Your task to perform on an android device: change keyboard looks Image 0: 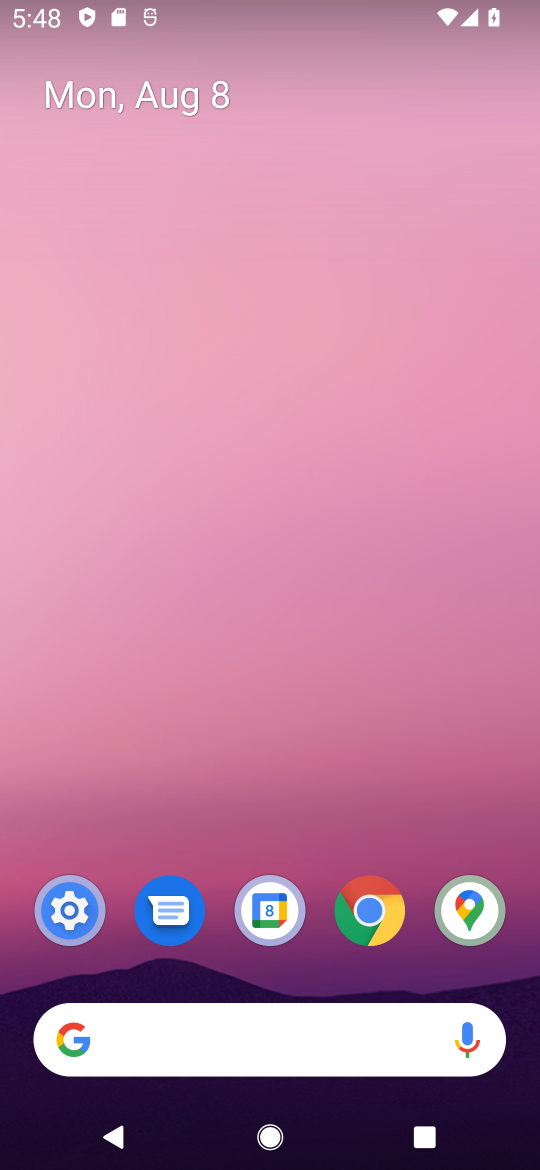
Step 0: drag from (212, 1036) to (293, 432)
Your task to perform on an android device: change keyboard looks Image 1: 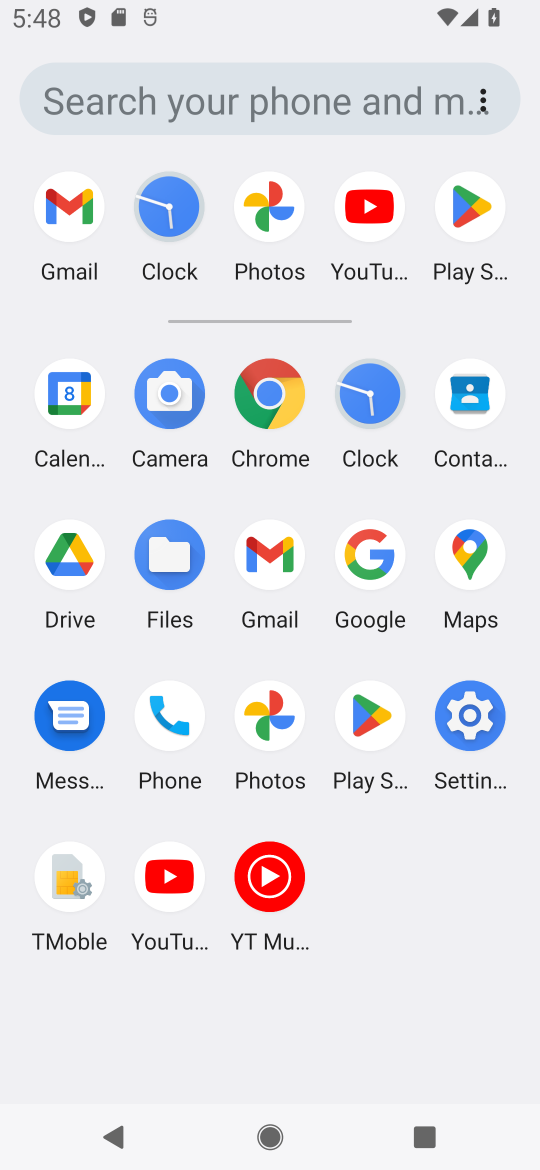
Step 1: click (465, 714)
Your task to perform on an android device: change keyboard looks Image 2: 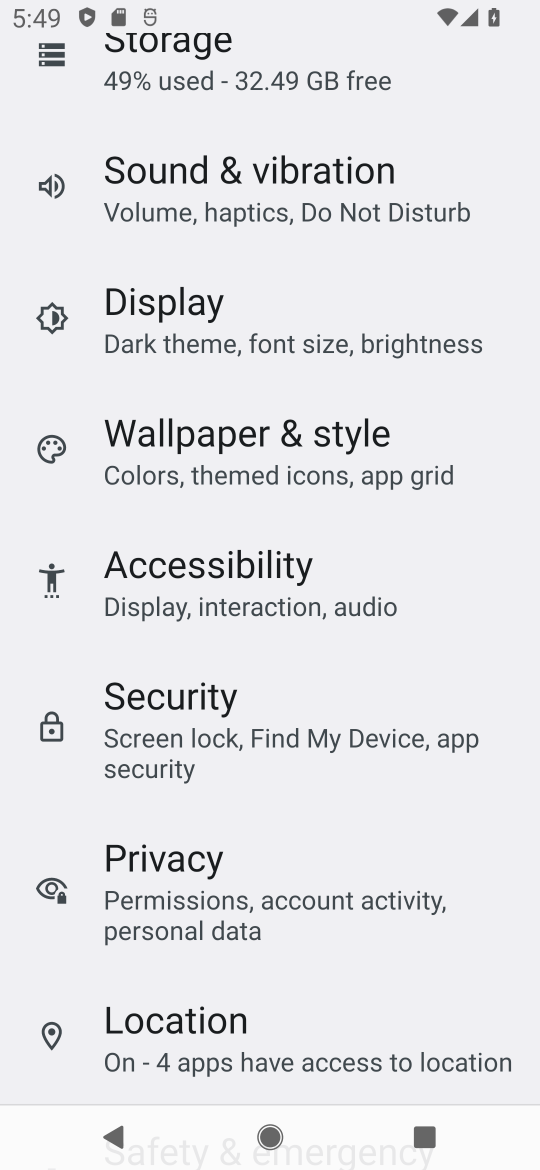
Step 2: drag from (332, 925) to (358, 698)
Your task to perform on an android device: change keyboard looks Image 3: 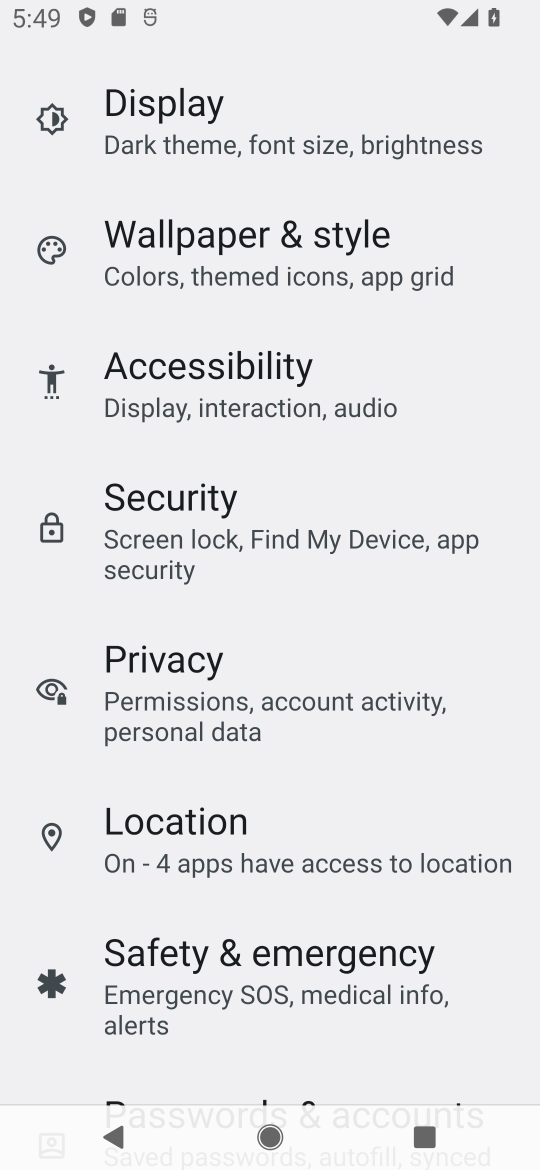
Step 3: drag from (322, 887) to (383, 785)
Your task to perform on an android device: change keyboard looks Image 4: 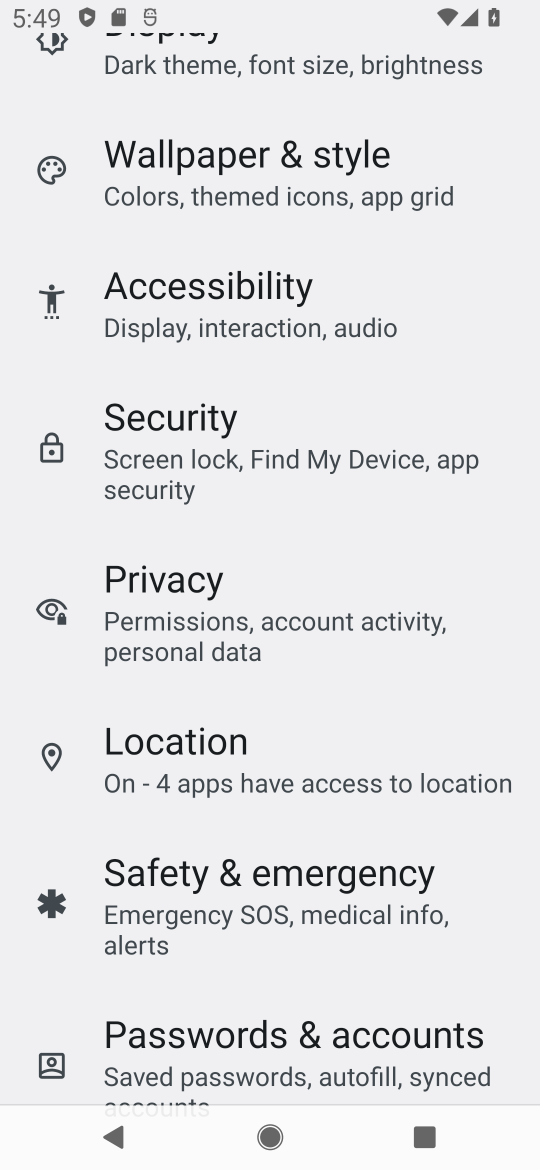
Step 4: drag from (373, 848) to (354, 749)
Your task to perform on an android device: change keyboard looks Image 5: 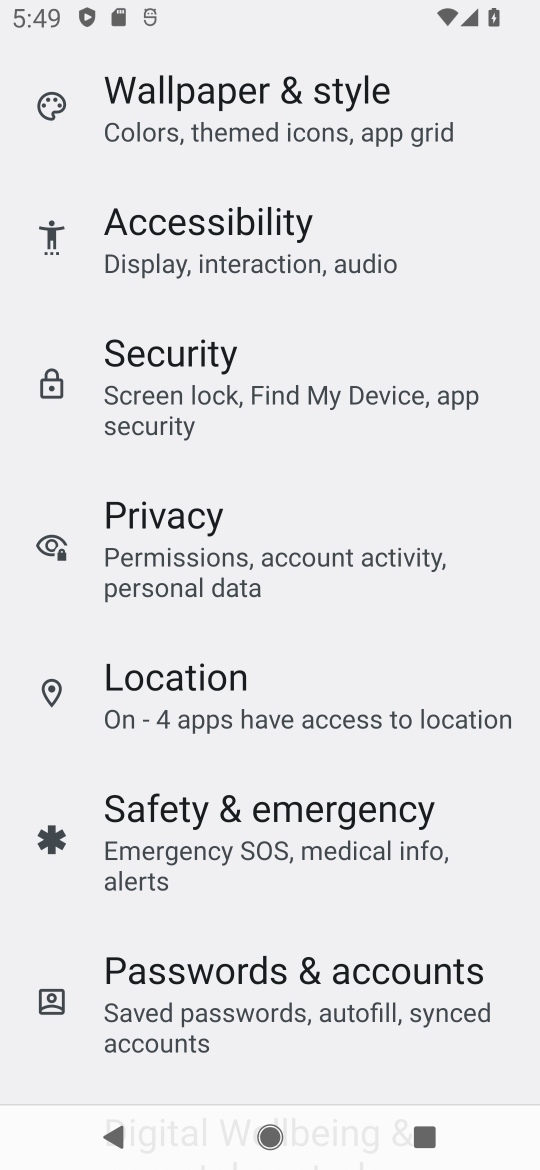
Step 5: drag from (370, 902) to (384, 751)
Your task to perform on an android device: change keyboard looks Image 6: 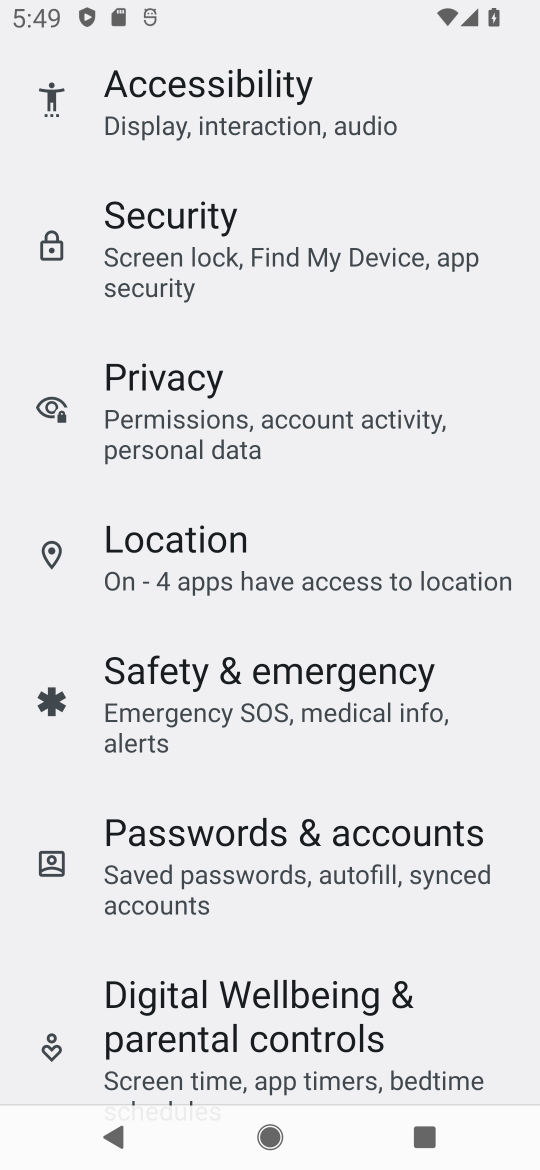
Step 6: drag from (351, 953) to (396, 739)
Your task to perform on an android device: change keyboard looks Image 7: 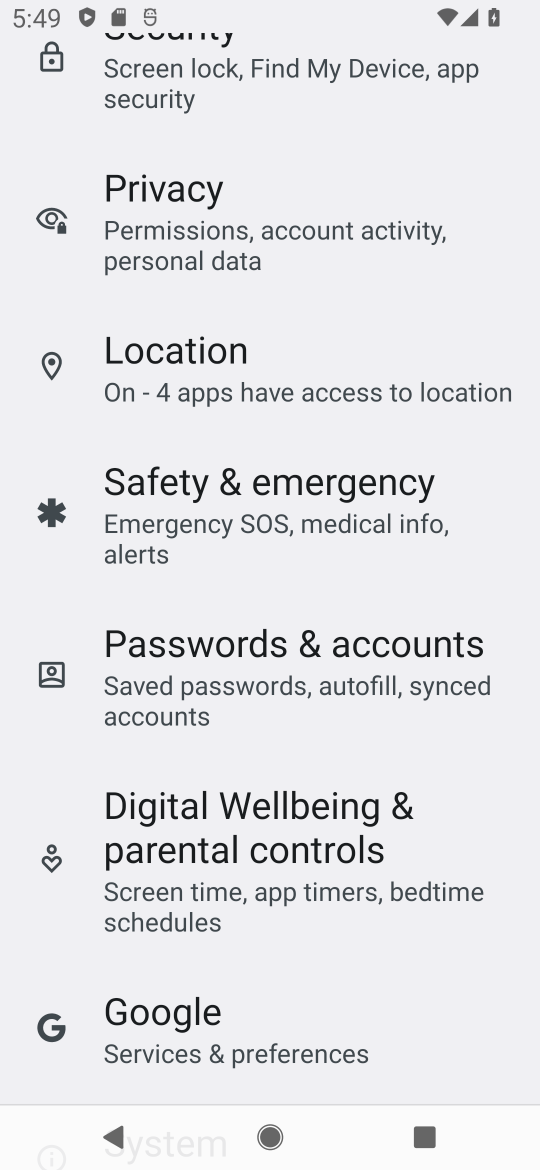
Step 7: drag from (325, 970) to (360, 824)
Your task to perform on an android device: change keyboard looks Image 8: 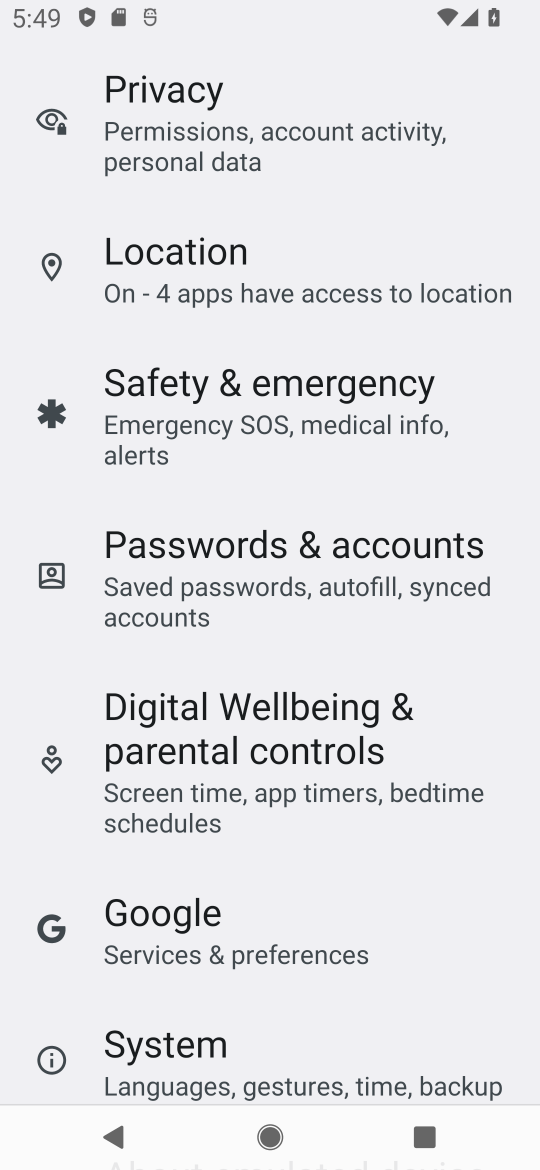
Step 8: drag from (277, 1036) to (353, 873)
Your task to perform on an android device: change keyboard looks Image 9: 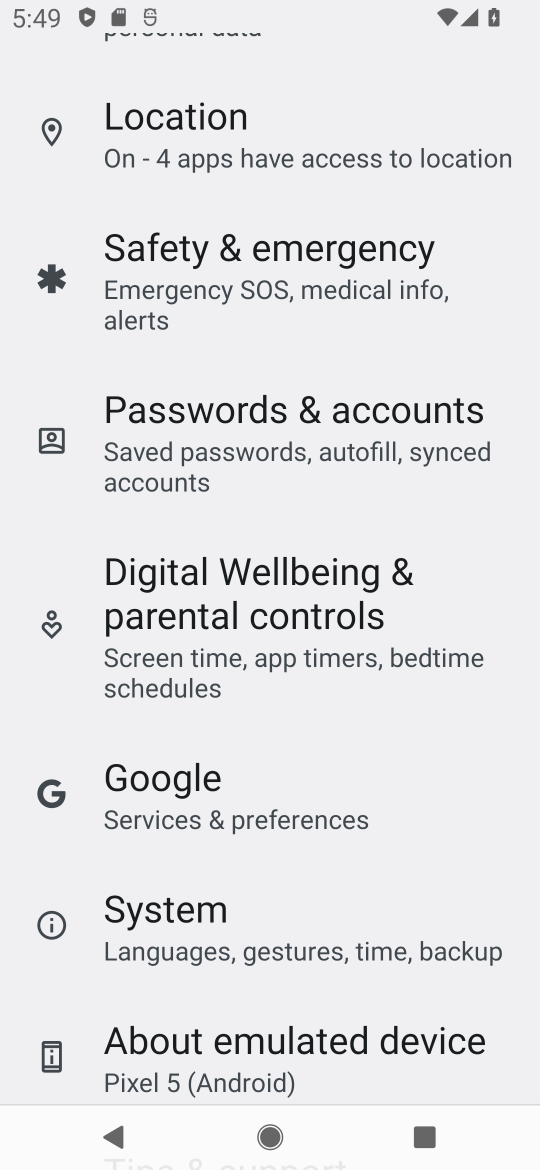
Step 9: click (266, 950)
Your task to perform on an android device: change keyboard looks Image 10: 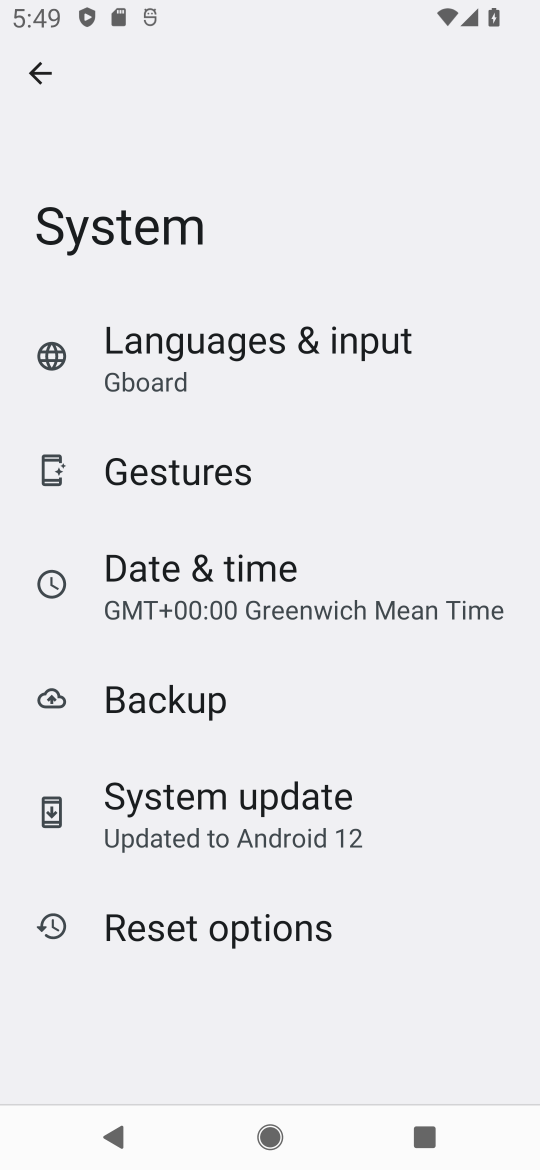
Step 10: click (221, 346)
Your task to perform on an android device: change keyboard looks Image 11: 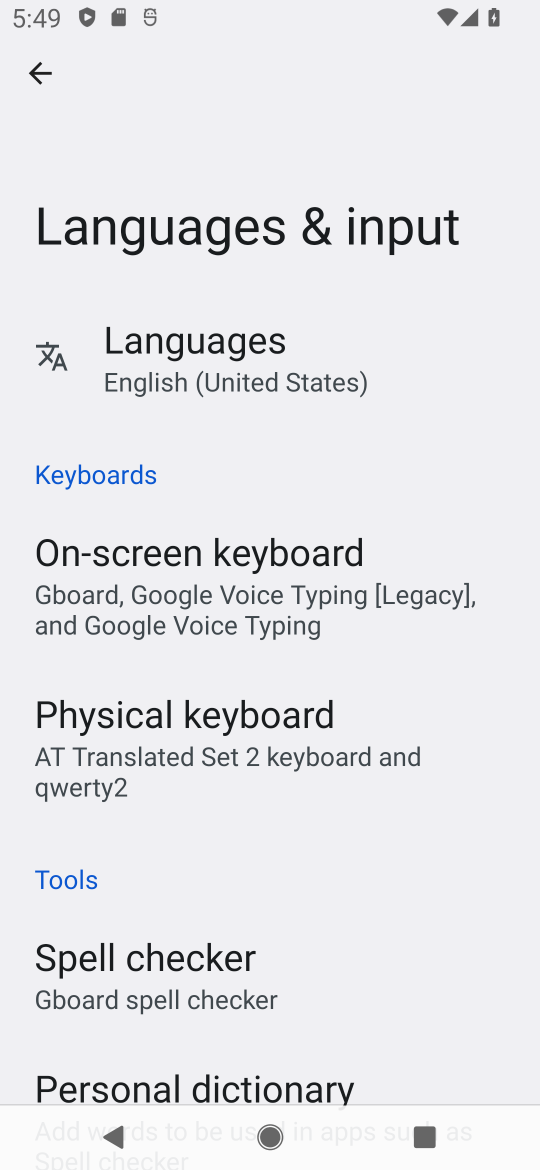
Step 11: click (177, 570)
Your task to perform on an android device: change keyboard looks Image 12: 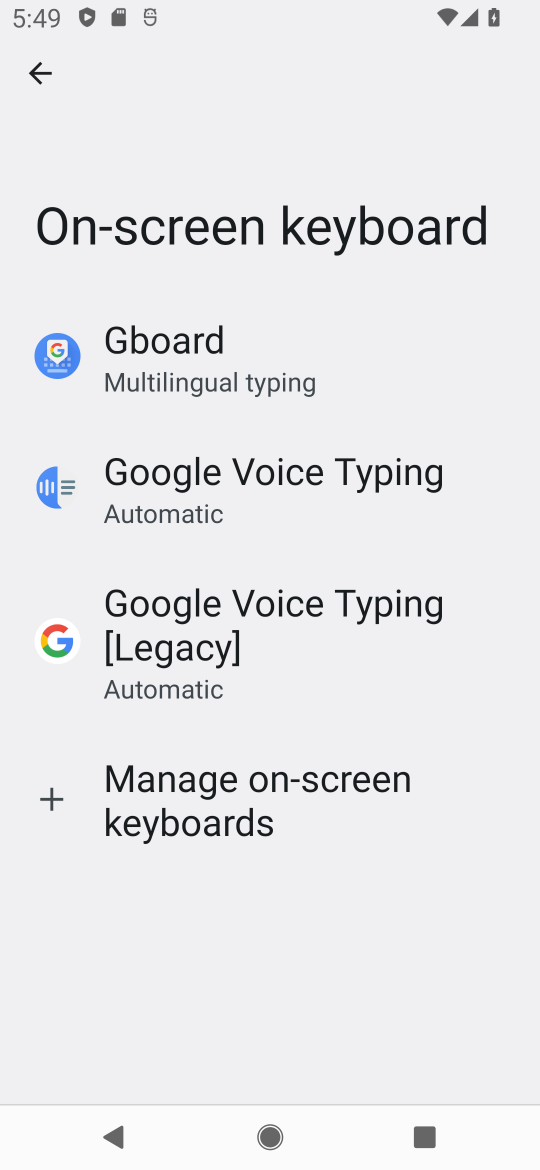
Step 12: click (169, 367)
Your task to perform on an android device: change keyboard looks Image 13: 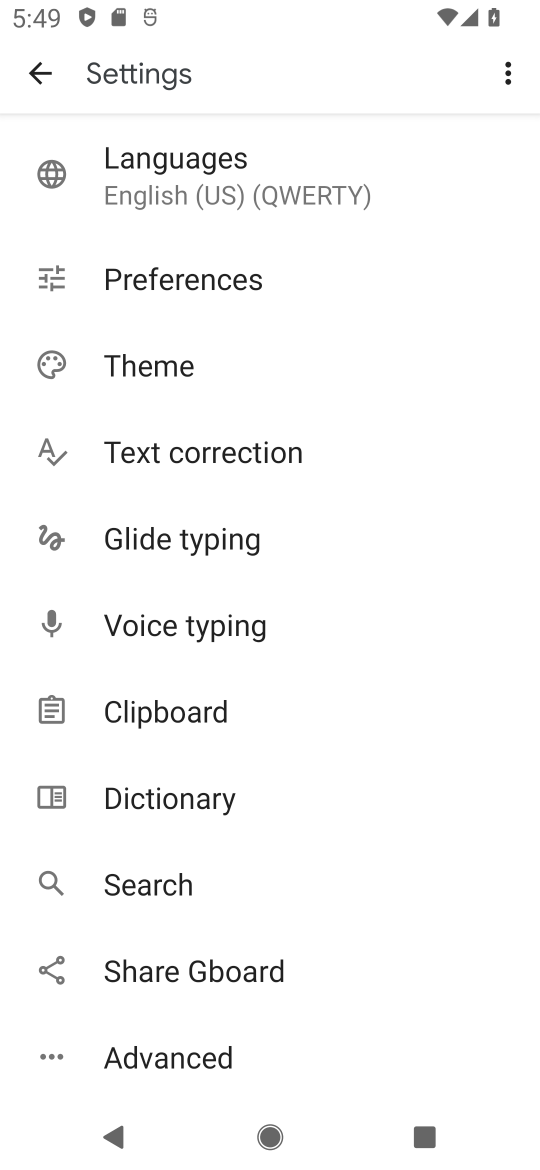
Step 13: click (169, 365)
Your task to perform on an android device: change keyboard looks Image 14: 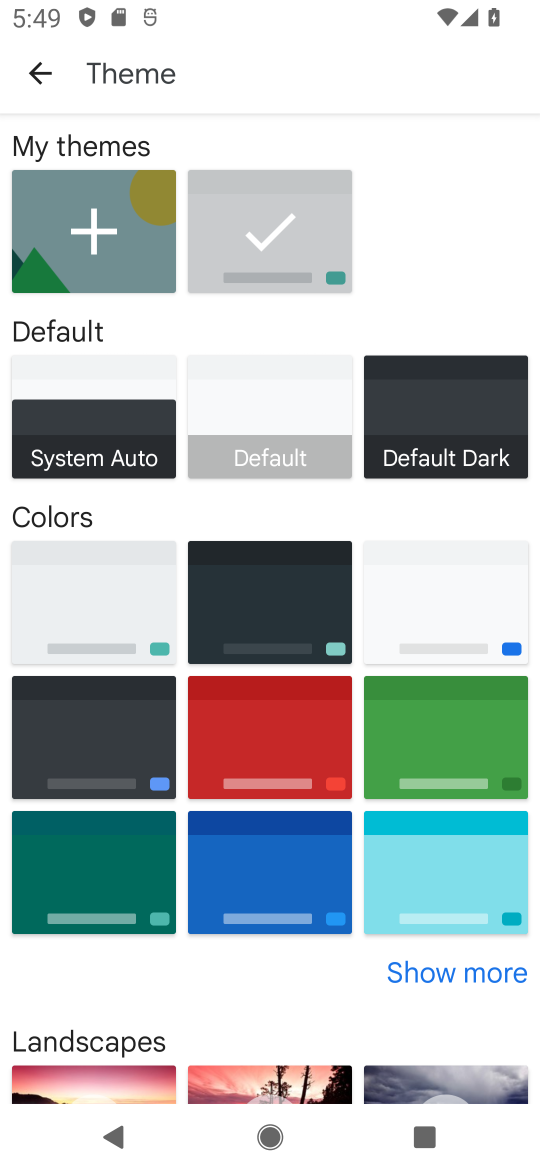
Step 14: click (121, 411)
Your task to perform on an android device: change keyboard looks Image 15: 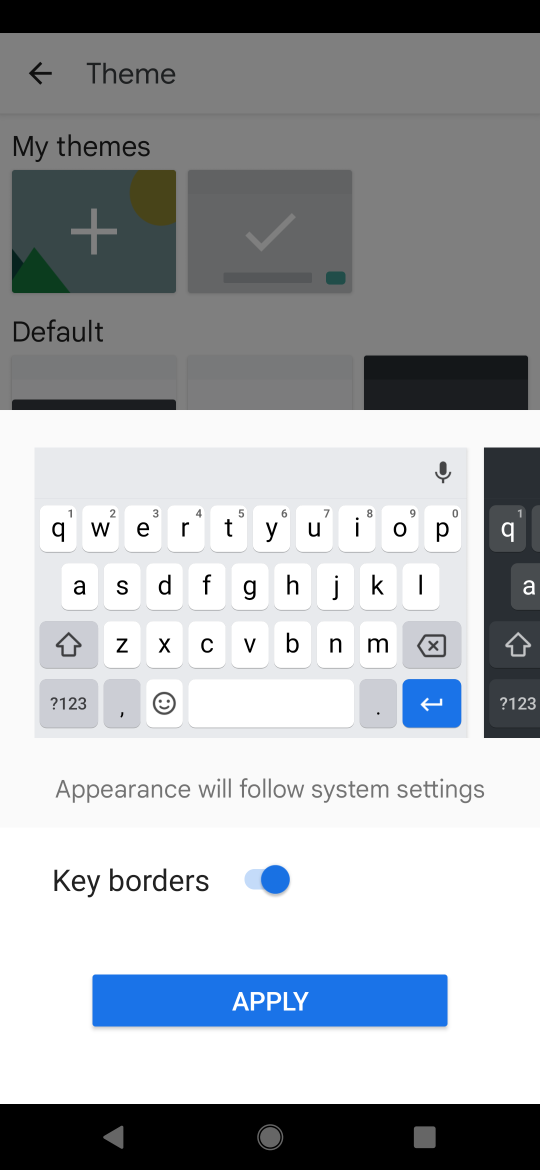
Step 15: click (331, 997)
Your task to perform on an android device: change keyboard looks Image 16: 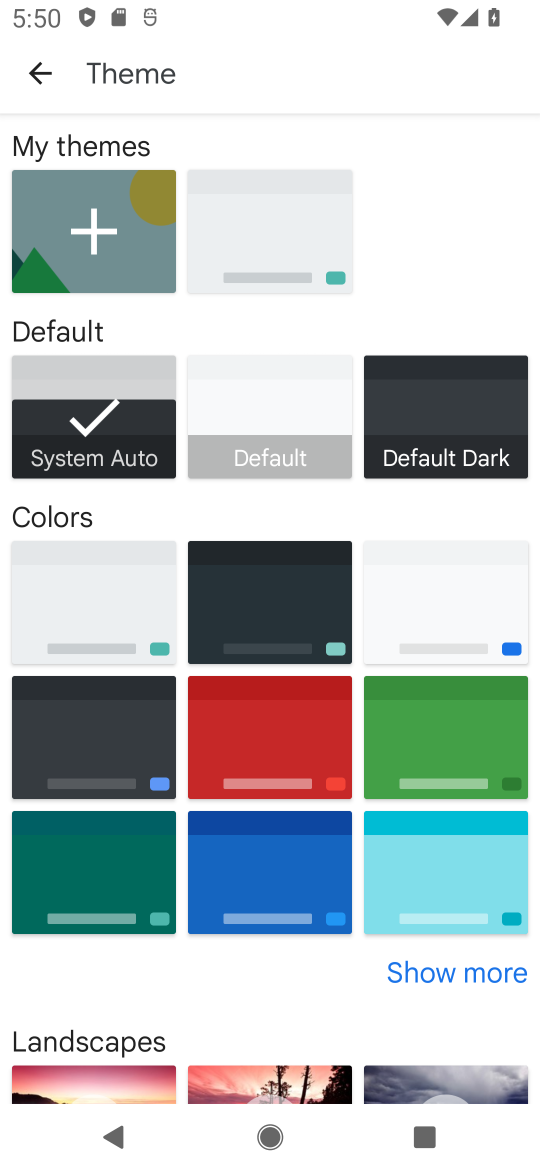
Step 16: task complete